Your task to perform on an android device: open app "Gmail" (install if not already installed), go to login, and select forgot password Image 0: 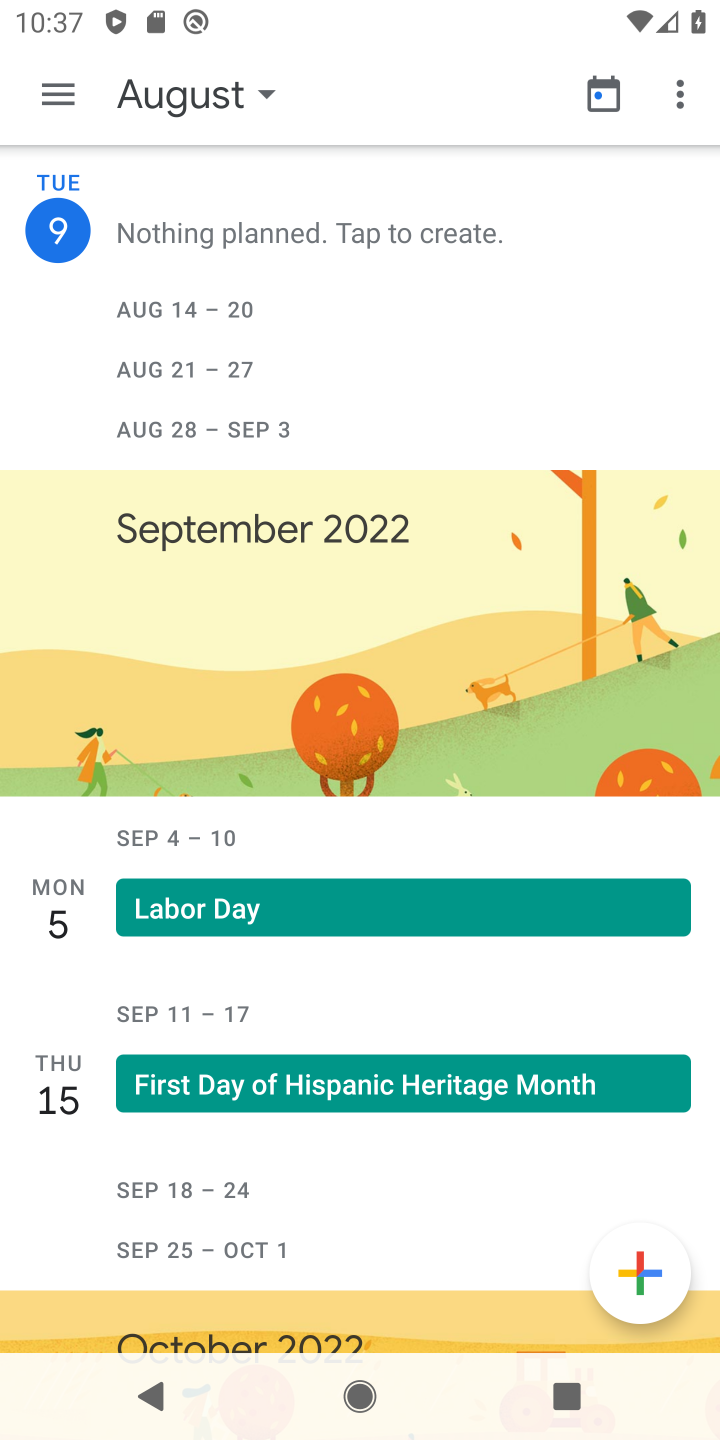
Step 0: press home button
Your task to perform on an android device: open app "Gmail" (install if not already installed), go to login, and select forgot password Image 1: 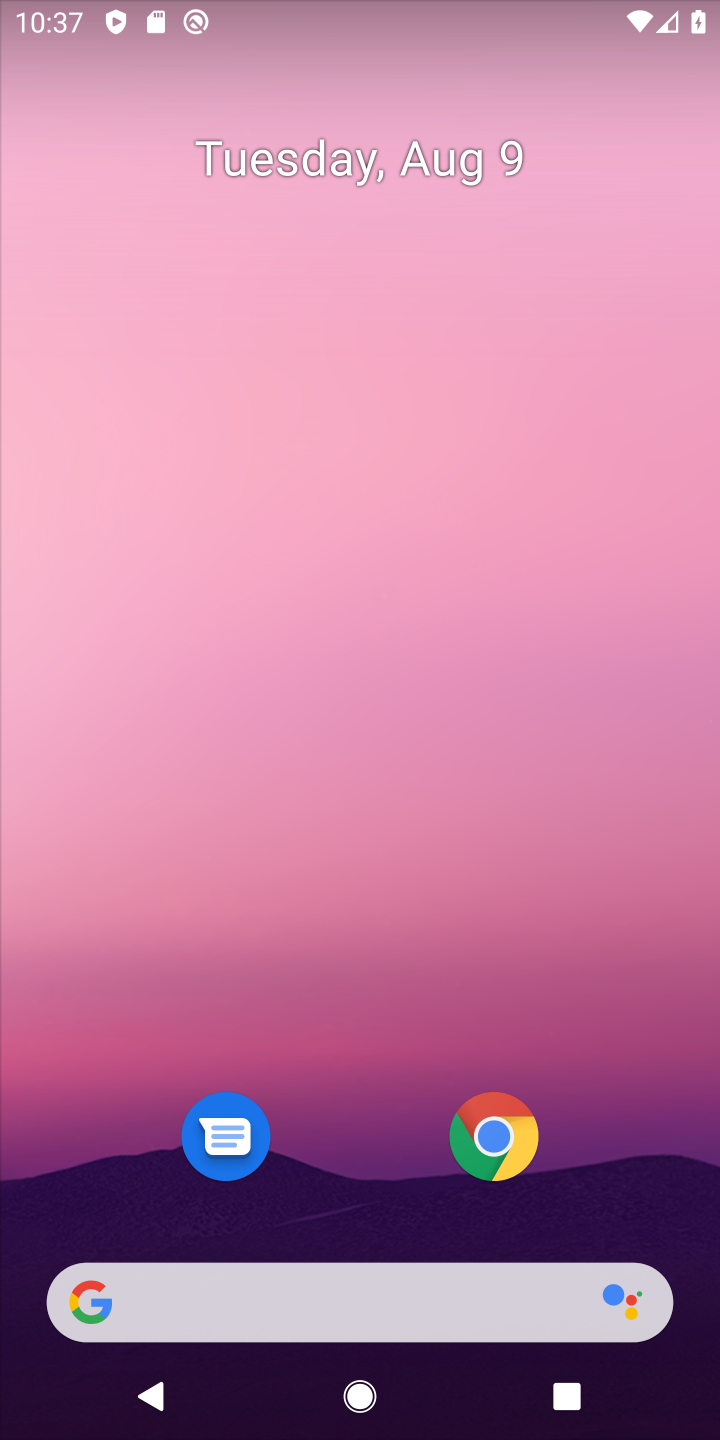
Step 1: drag from (327, 1160) to (354, 45)
Your task to perform on an android device: open app "Gmail" (install if not already installed), go to login, and select forgot password Image 2: 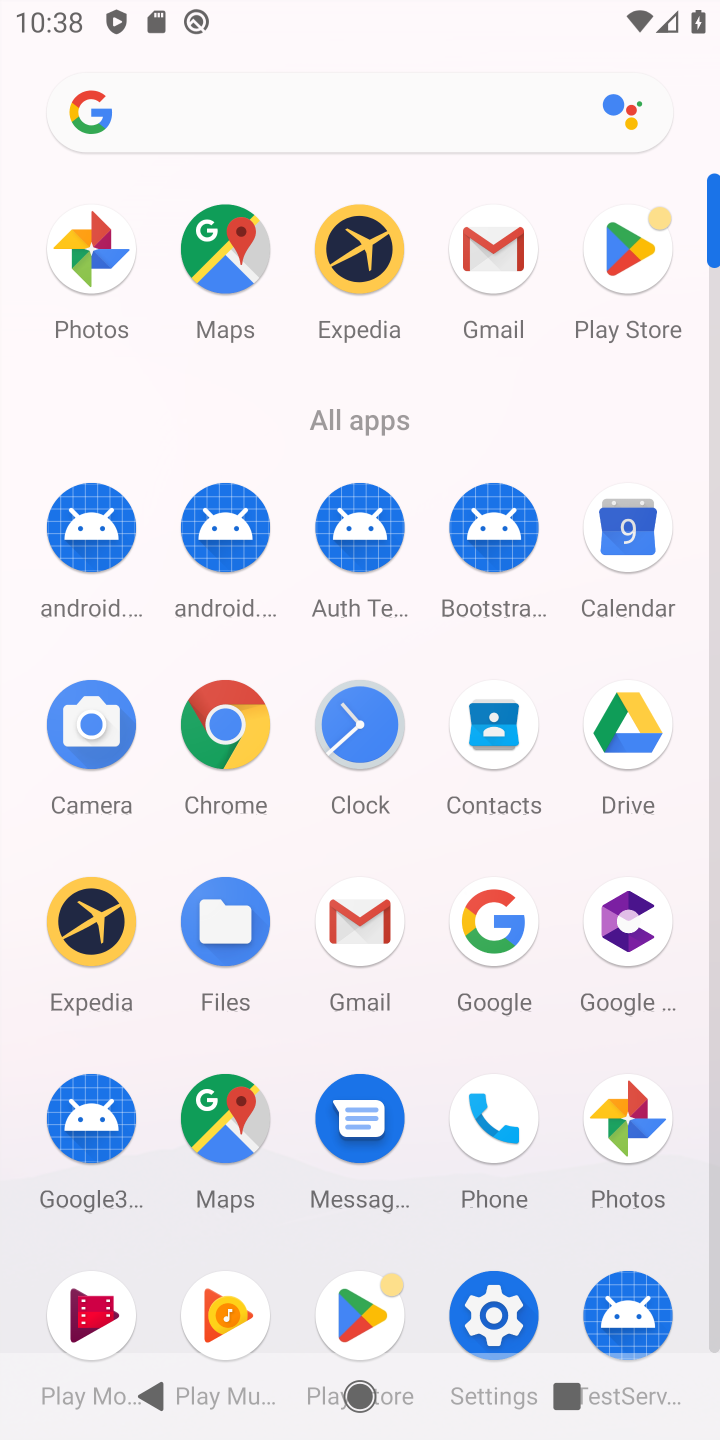
Step 2: click (357, 939)
Your task to perform on an android device: open app "Gmail" (install if not already installed), go to login, and select forgot password Image 3: 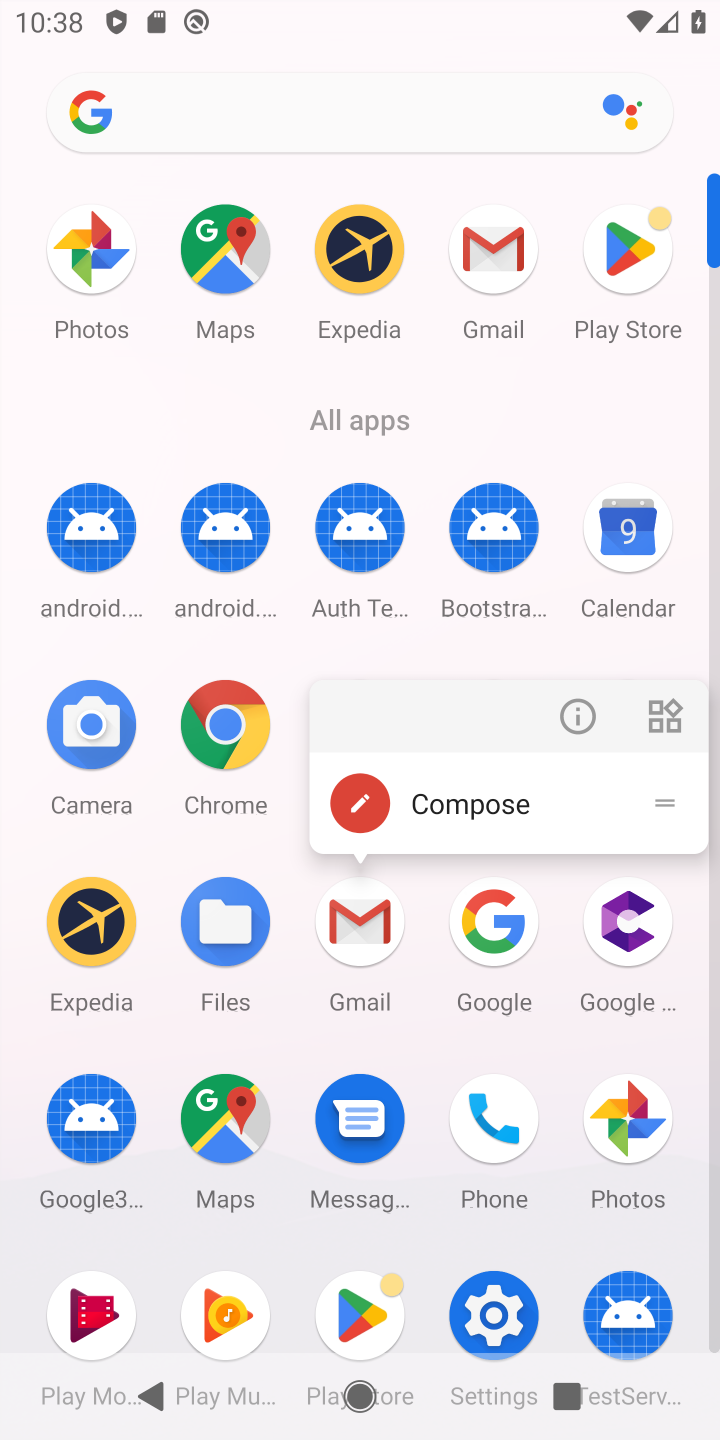
Step 3: click (351, 944)
Your task to perform on an android device: open app "Gmail" (install if not already installed), go to login, and select forgot password Image 4: 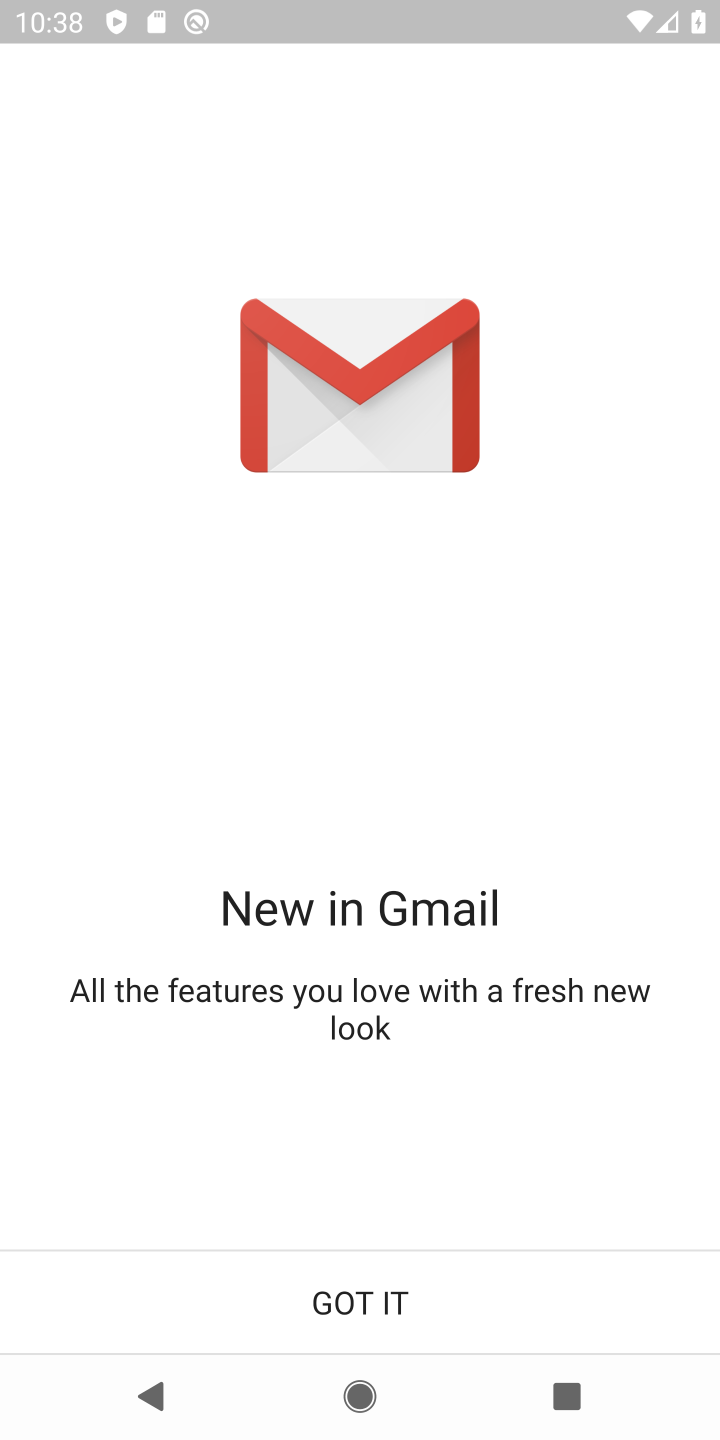
Step 4: click (400, 1289)
Your task to perform on an android device: open app "Gmail" (install if not already installed), go to login, and select forgot password Image 5: 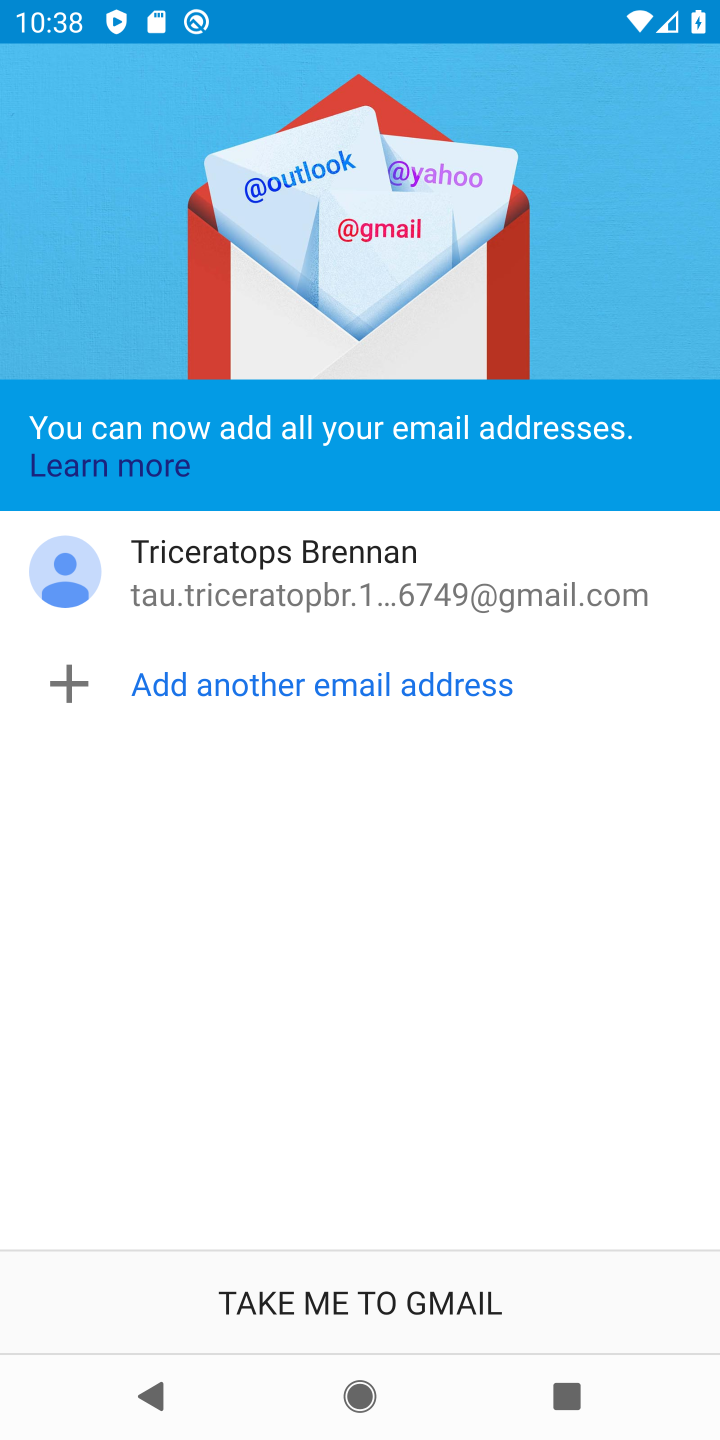
Step 5: click (396, 1289)
Your task to perform on an android device: open app "Gmail" (install if not already installed), go to login, and select forgot password Image 6: 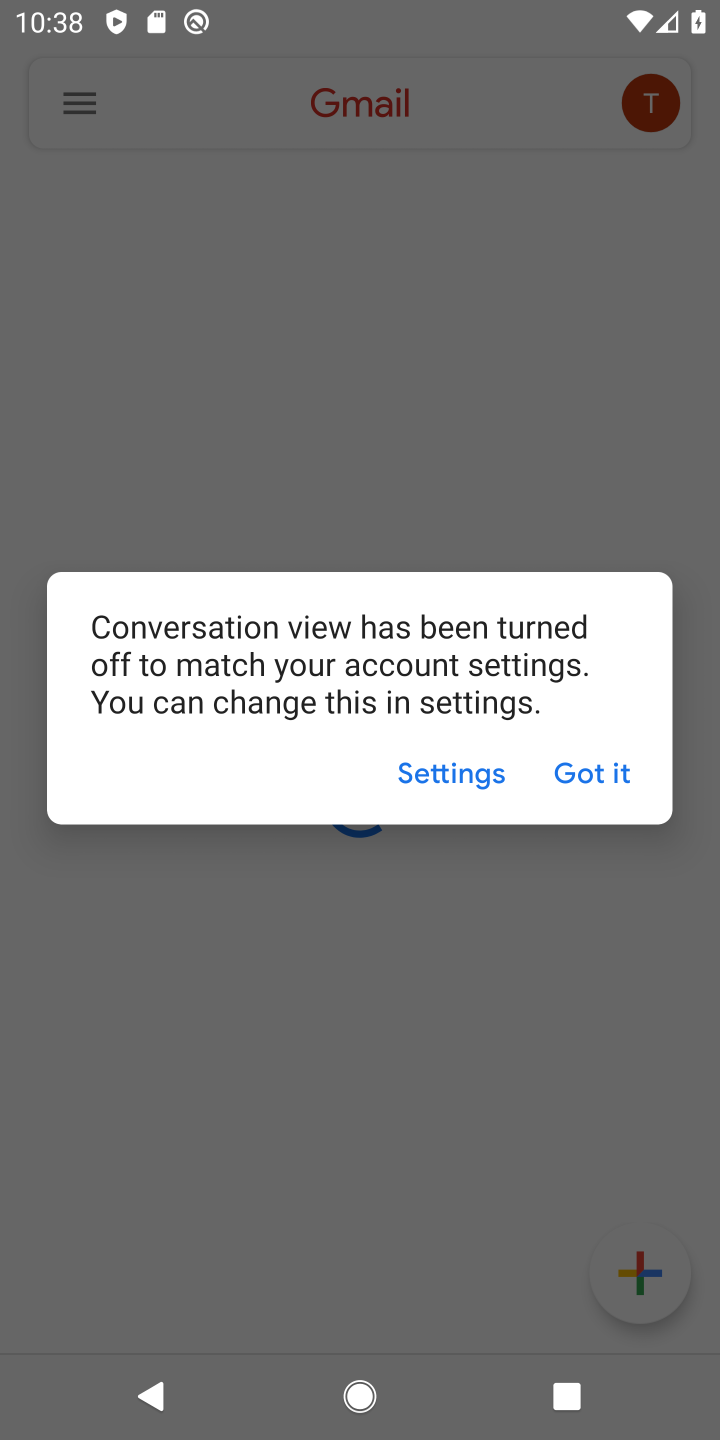
Step 6: click (597, 766)
Your task to perform on an android device: open app "Gmail" (install if not already installed), go to login, and select forgot password Image 7: 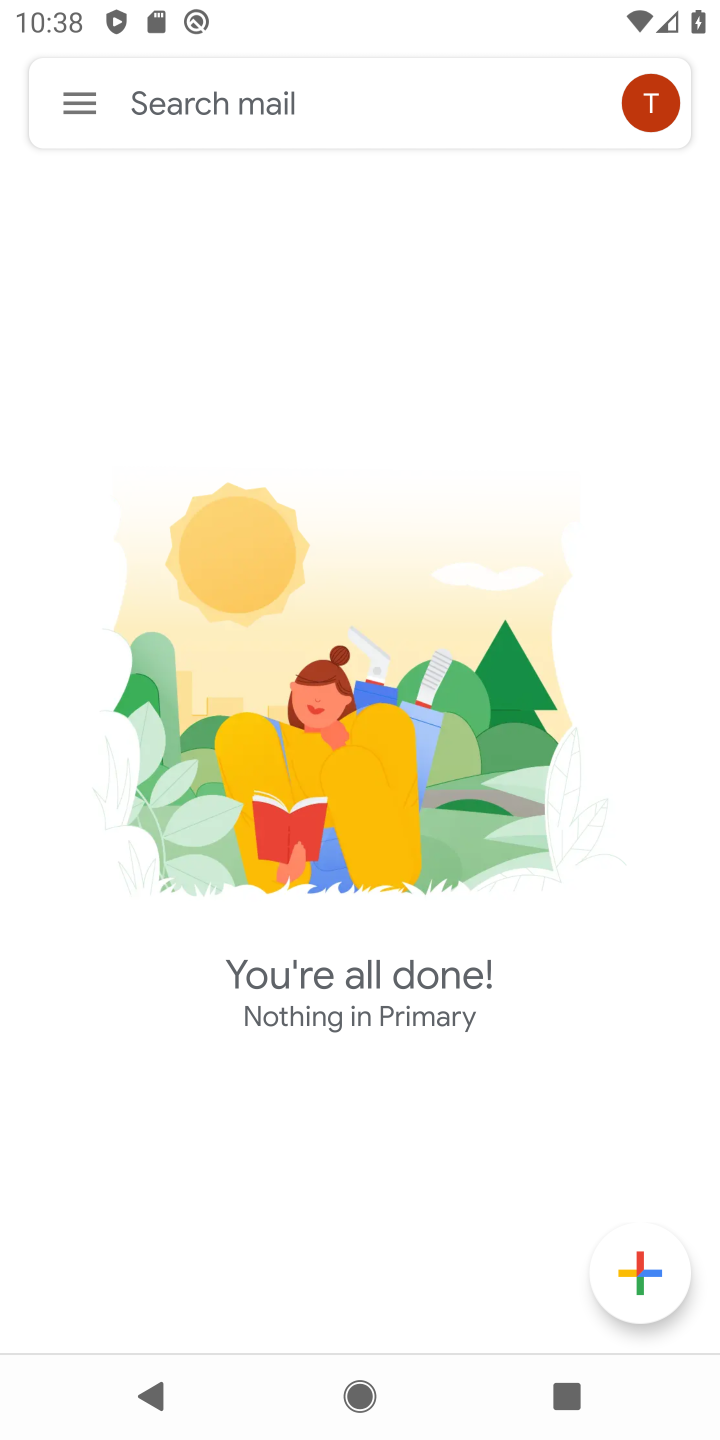
Step 7: task complete